Your task to perform on an android device: turn on javascript in the chrome app Image 0: 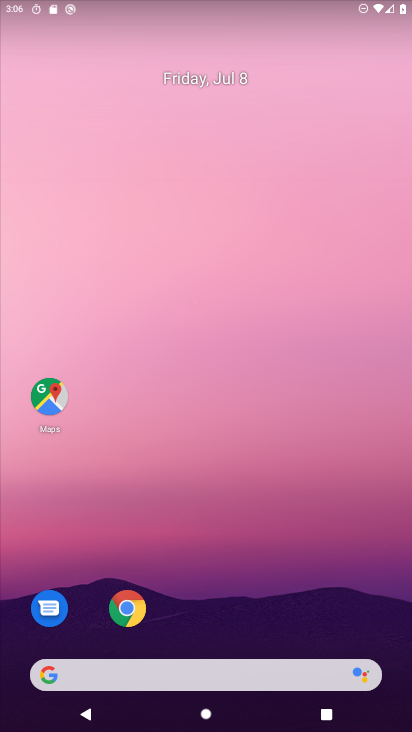
Step 0: click (125, 609)
Your task to perform on an android device: turn on javascript in the chrome app Image 1: 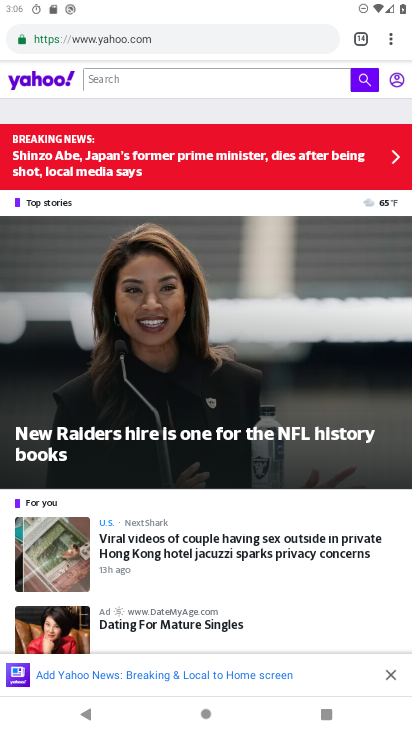
Step 1: click (390, 44)
Your task to perform on an android device: turn on javascript in the chrome app Image 2: 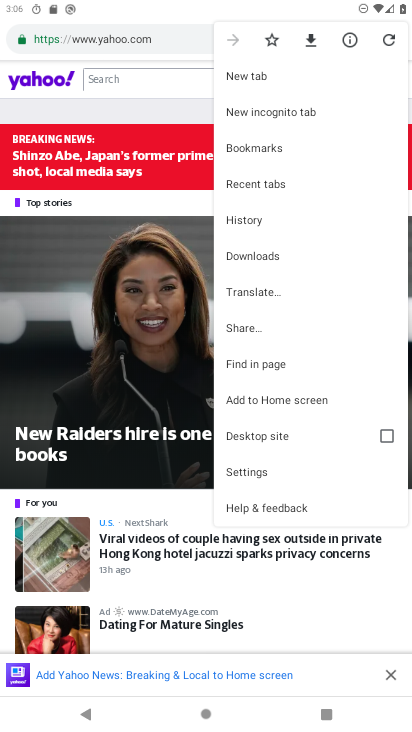
Step 2: click (255, 473)
Your task to perform on an android device: turn on javascript in the chrome app Image 3: 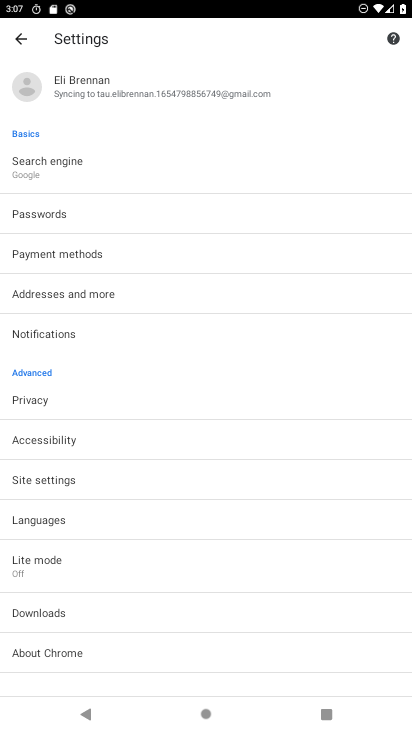
Step 3: click (42, 480)
Your task to perform on an android device: turn on javascript in the chrome app Image 4: 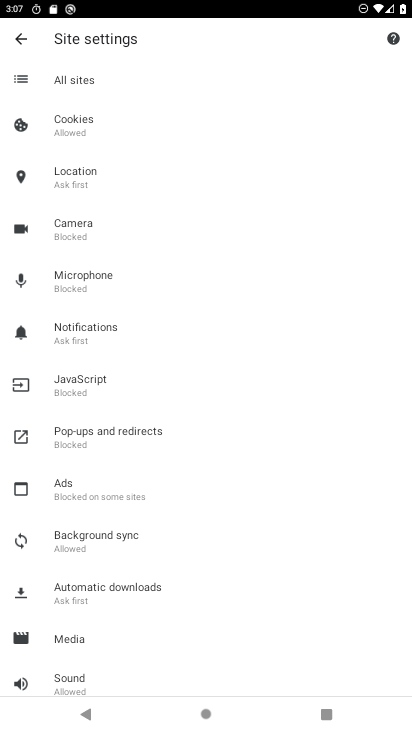
Step 4: click (67, 379)
Your task to perform on an android device: turn on javascript in the chrome app Image 5: 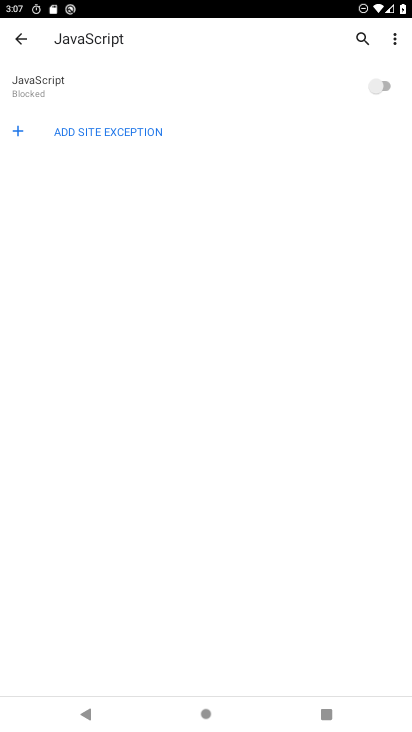
Step 5: click (379, 90)
Your task to perform on an android device: turn on javascript in the chrome app Image 6: 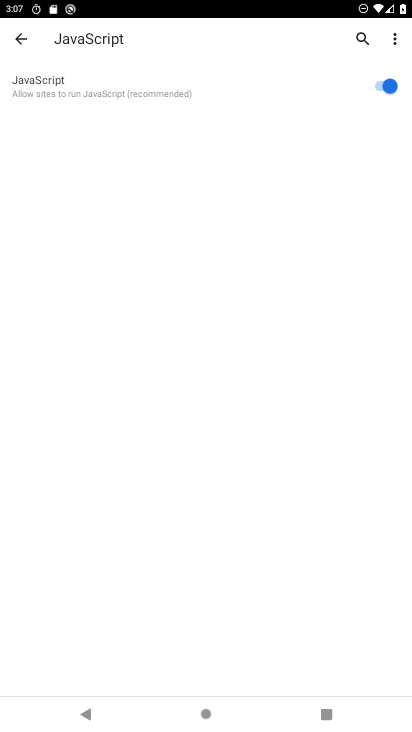
Step 6: task complete